Your task to perform on an android device: manage bookmarks in the chrome app Image 0: 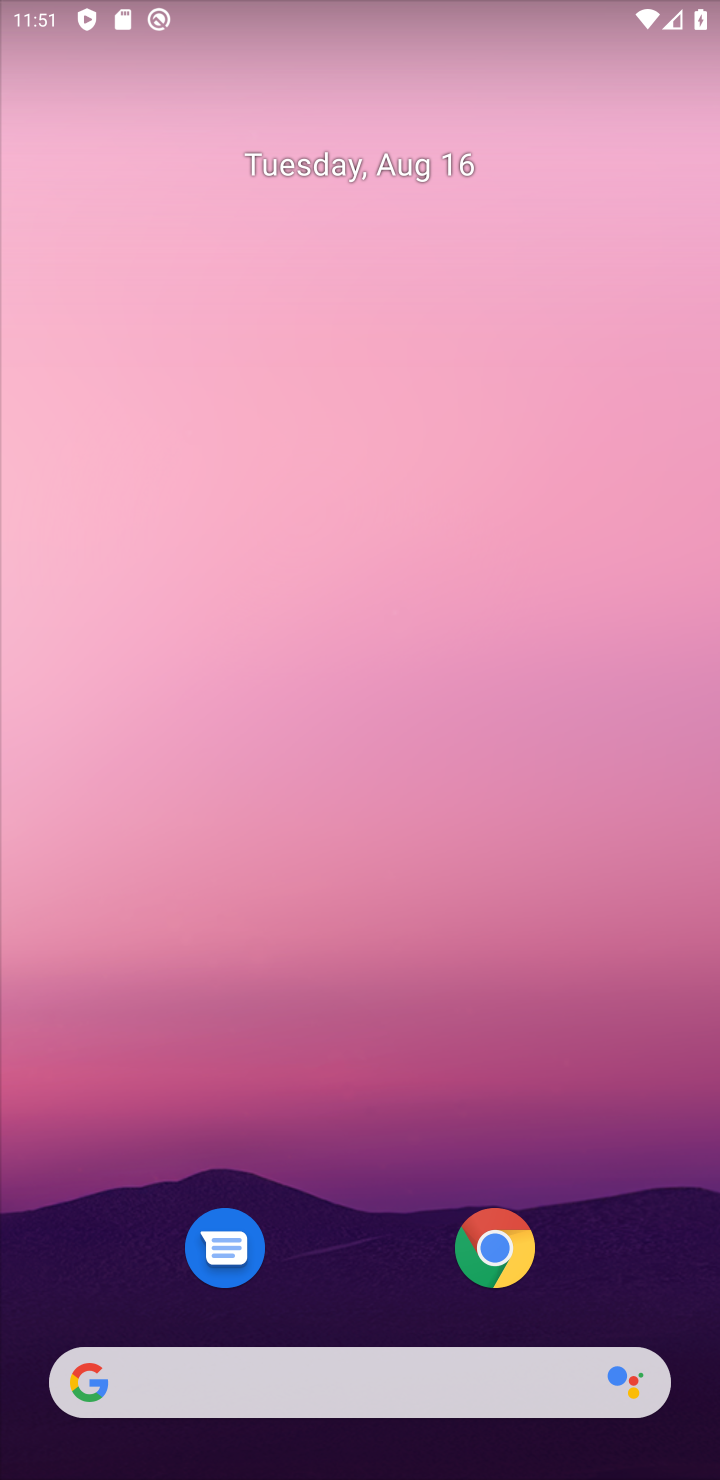
Step 0: drag from (342, 548) to (337, 182)
Your task to perform on an android device: manage bookmarks in the chrome app Image 1: 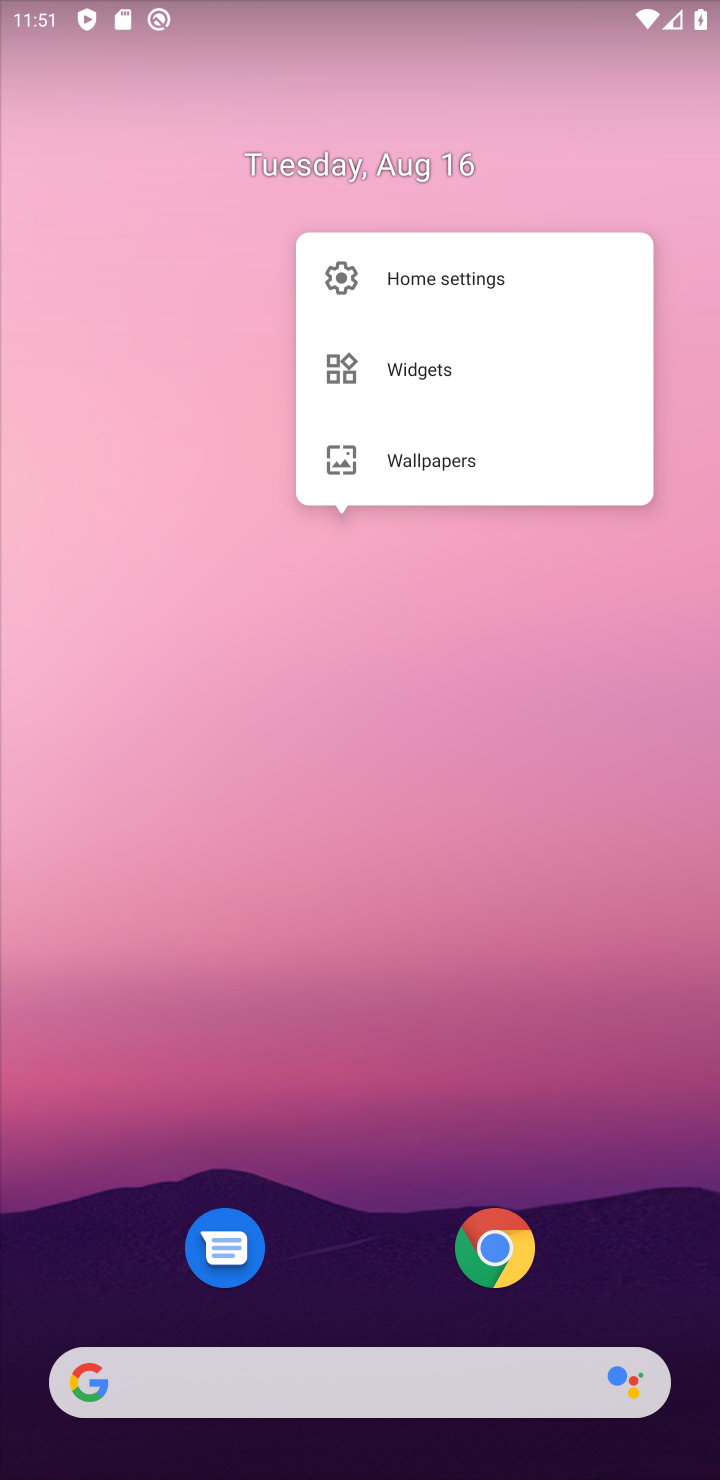
Step 1: click (487, 1247)
Your task to perform on an android device: manage bookmarks in the chrome app Image 2: 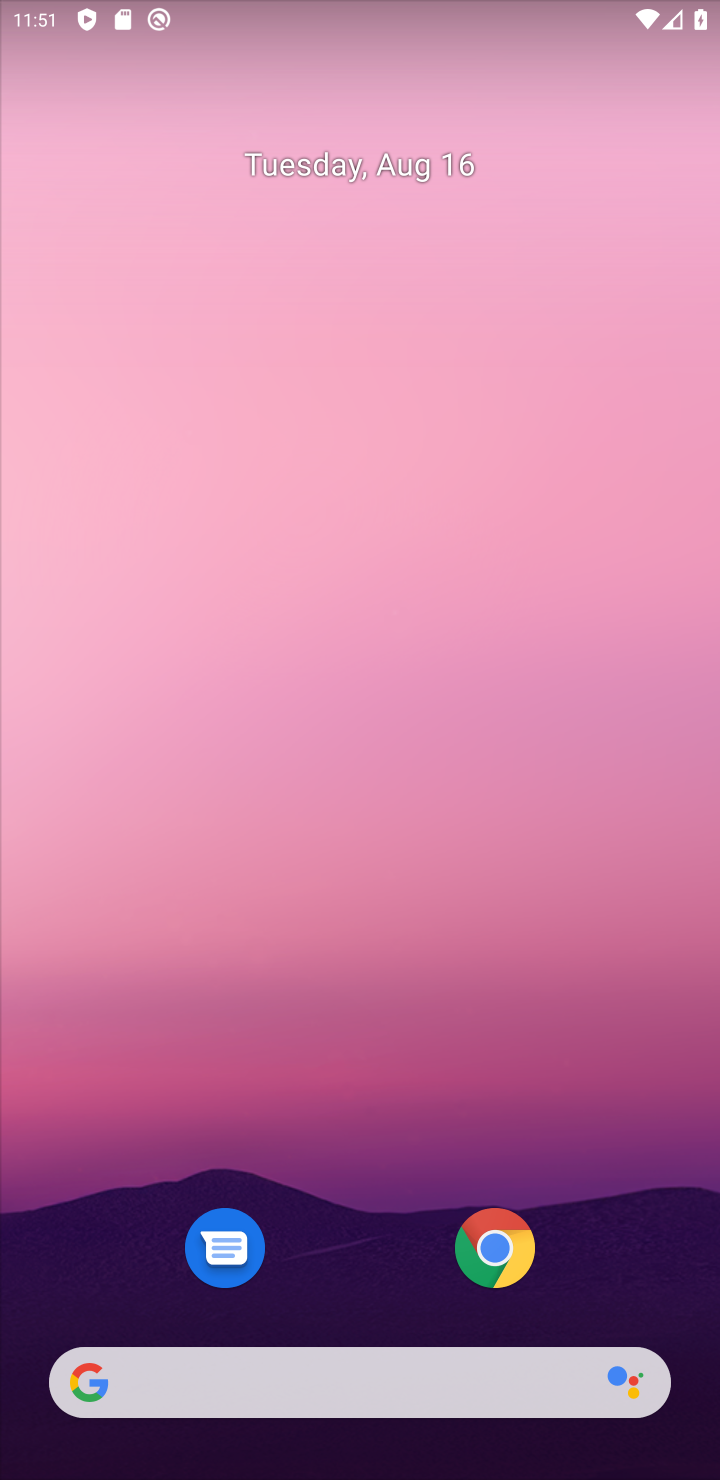
Step 2: click (487, 1247)
Your task to perform on an android device: manage bookmarks in the chrome app Image 3: 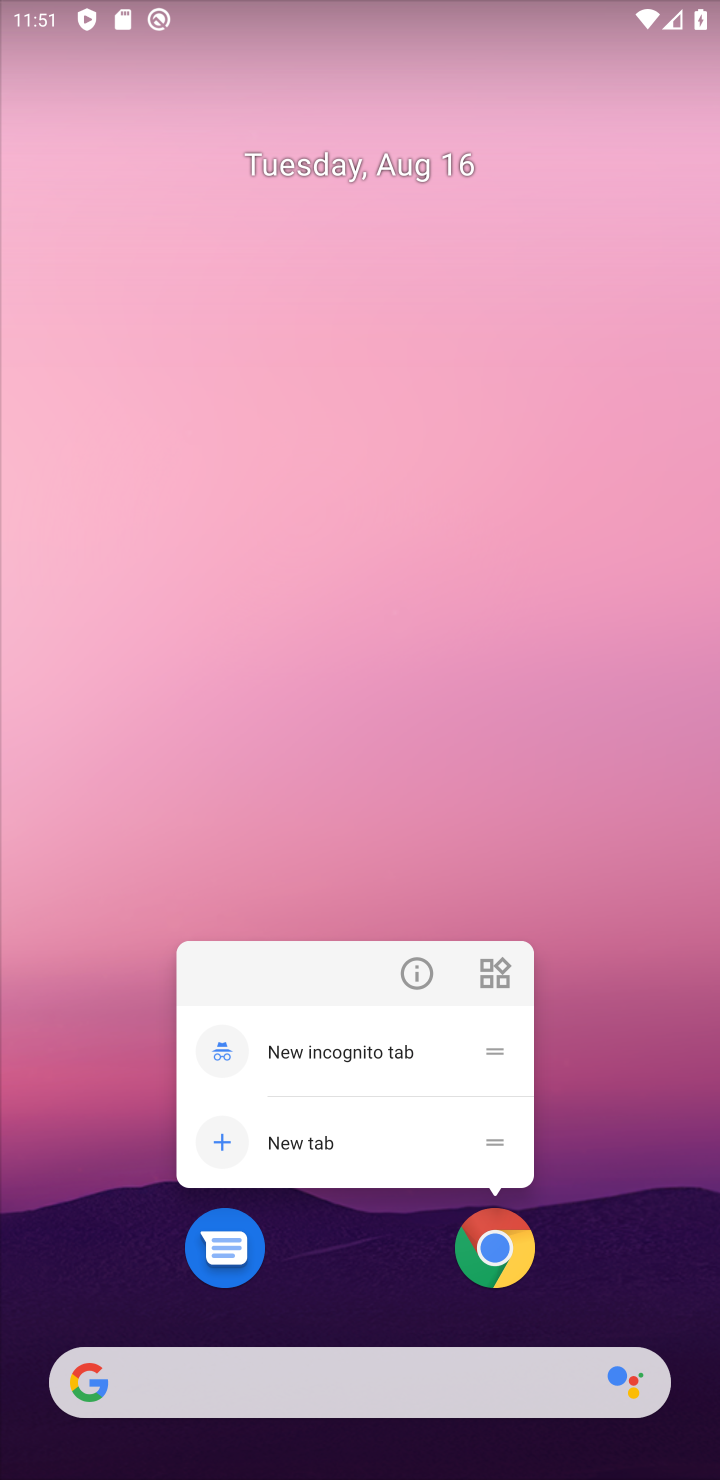
Step 3: click (487, 1247)
Your task to perform on an android device: manage bookmarks in the chrome app Image 4: 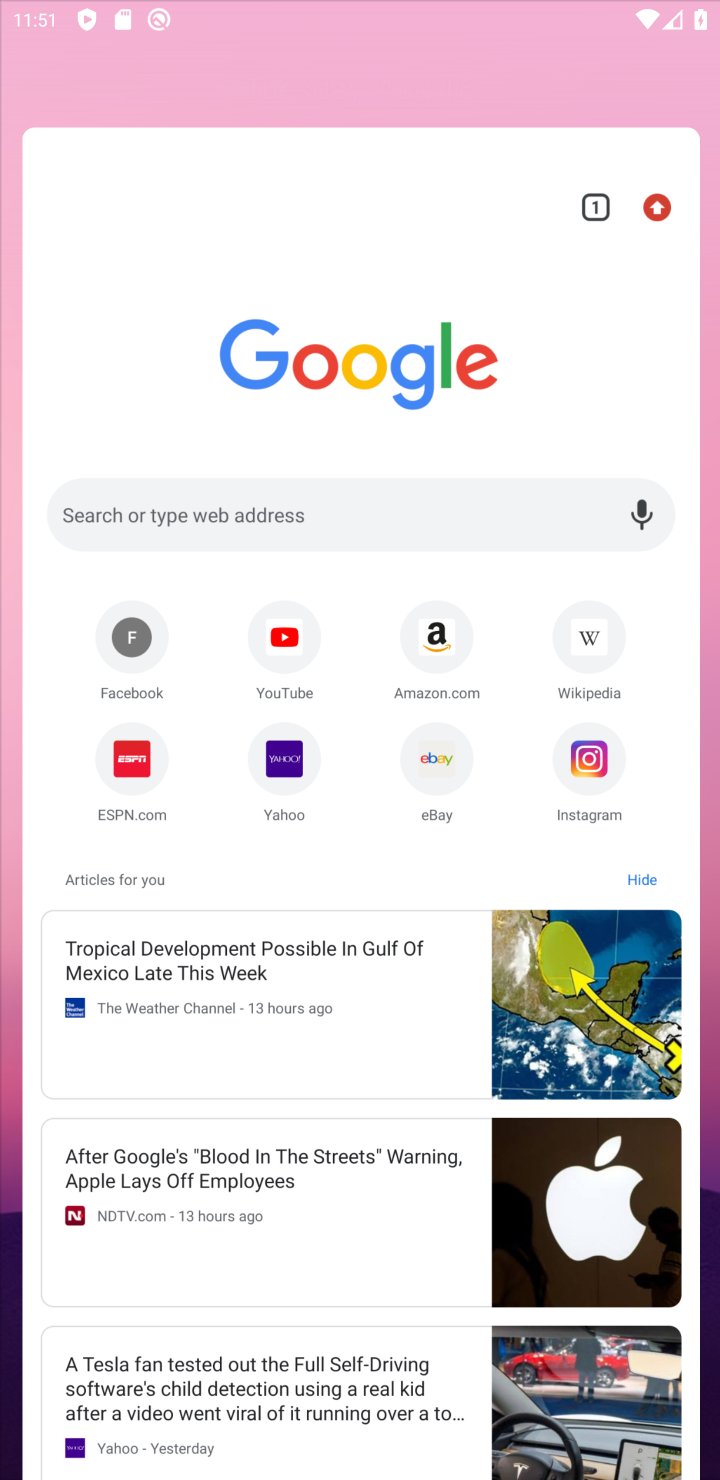
Step 4: task complete